Your task to perform on an android device: What's a good restaurant in San Diego? Image 0: 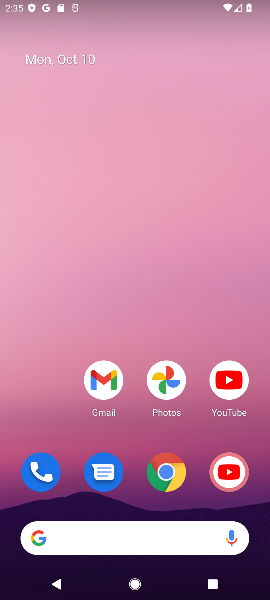
Step 0: click (127, 527)
Your task to perform on an android device: What's a good restaurant in San Diego? Image 1: 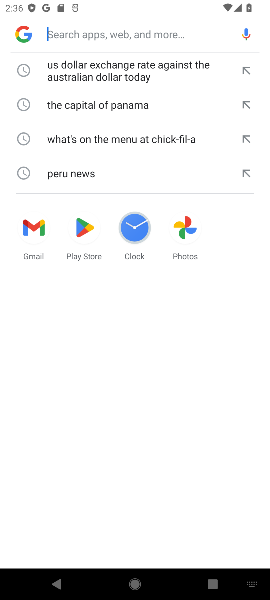
Step 1: type " a good restaurant in San Diego"
Your task to perform on an android device: What's a good restaurant in San Diego? Image 2: 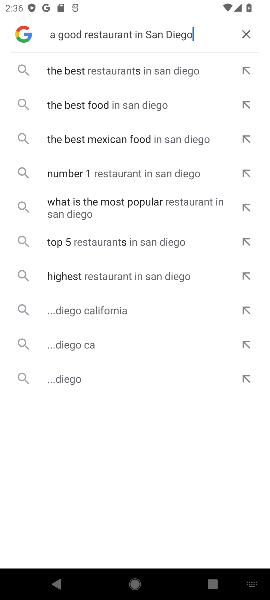
Step 2: click (186, 73)
Your task to perform on an android device: What's a good restaurant in San Diego? Image 3: 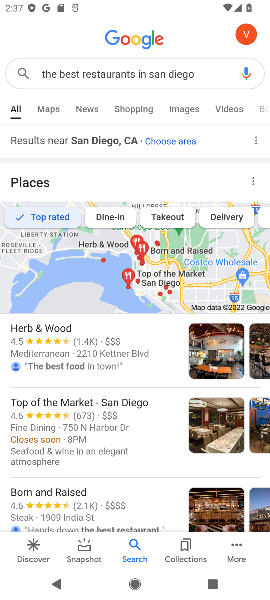
Step 3: task complete